Your task to perform on an android device: Google the capital of Venezuela Image 0: 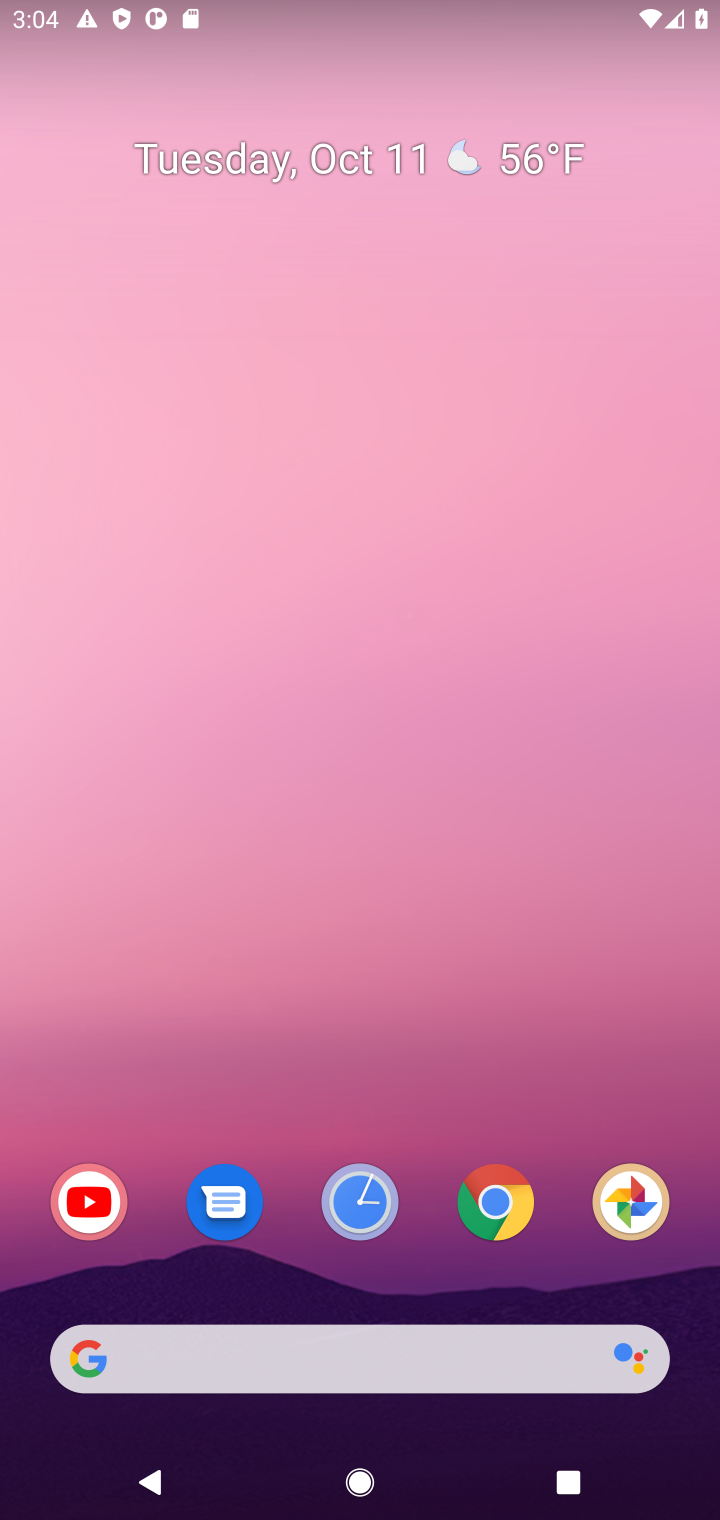
Step 0: drag from (429, 1243) to (449, 49)
Your task to perform on an android device: Google the capital of Venezuela Image 1: 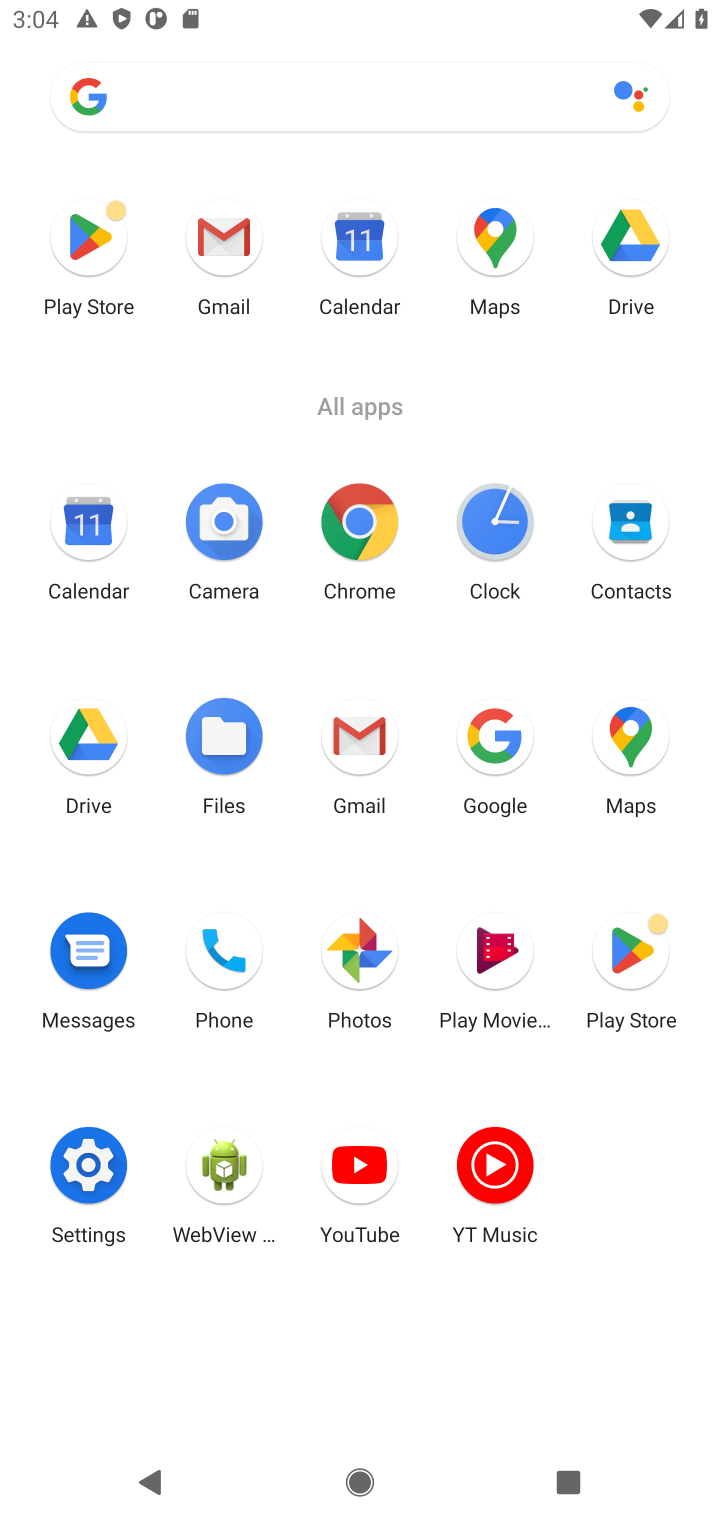
Step 1: click (359, 542)
Your task to perform on an android device: Google the capital of Venezuela Image 2: 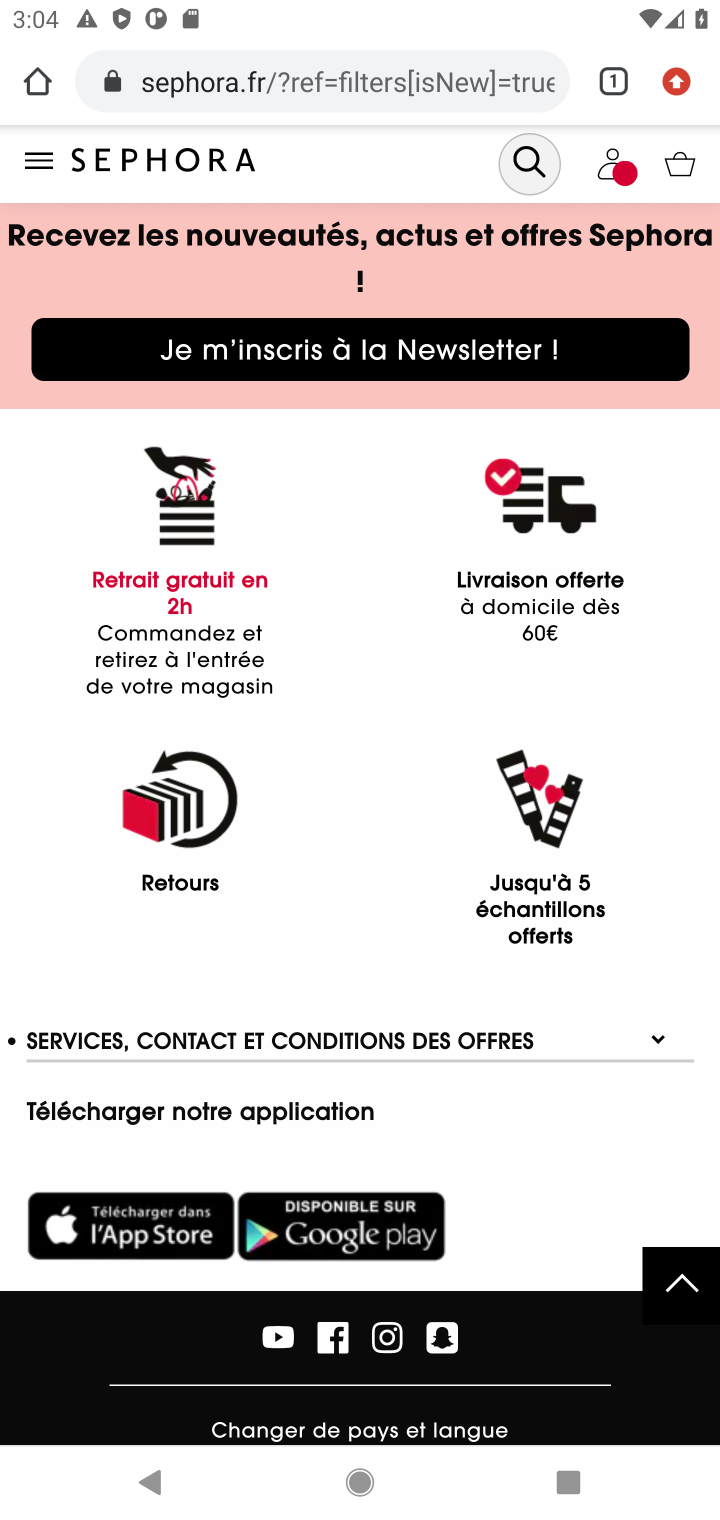
Step 2: click (276, 76)
Your task to perform on an android device: Google the capital of Venezuela Image 3: 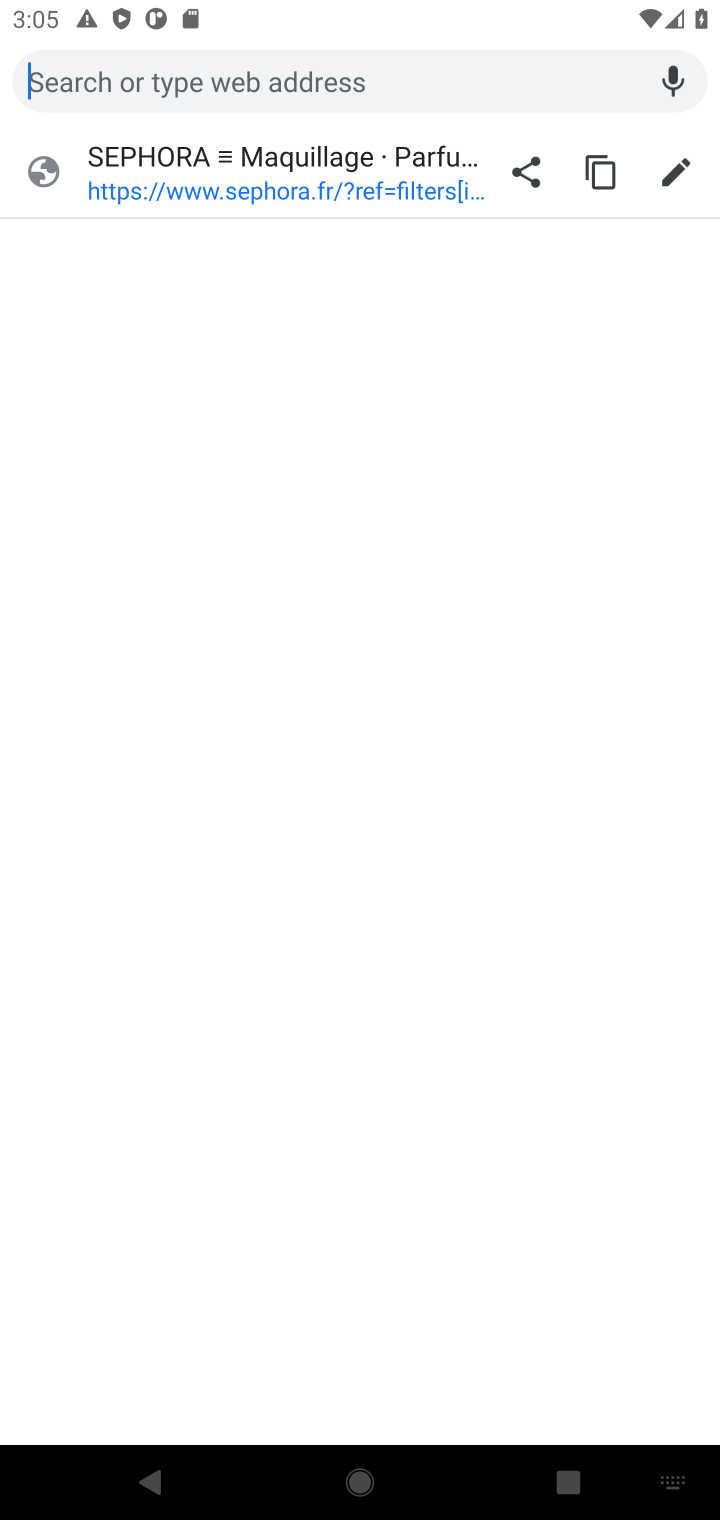
Step 3: type " capital of Venezuela"
Your task to perform on an android device: Google the capital of Venezuela Image 4: 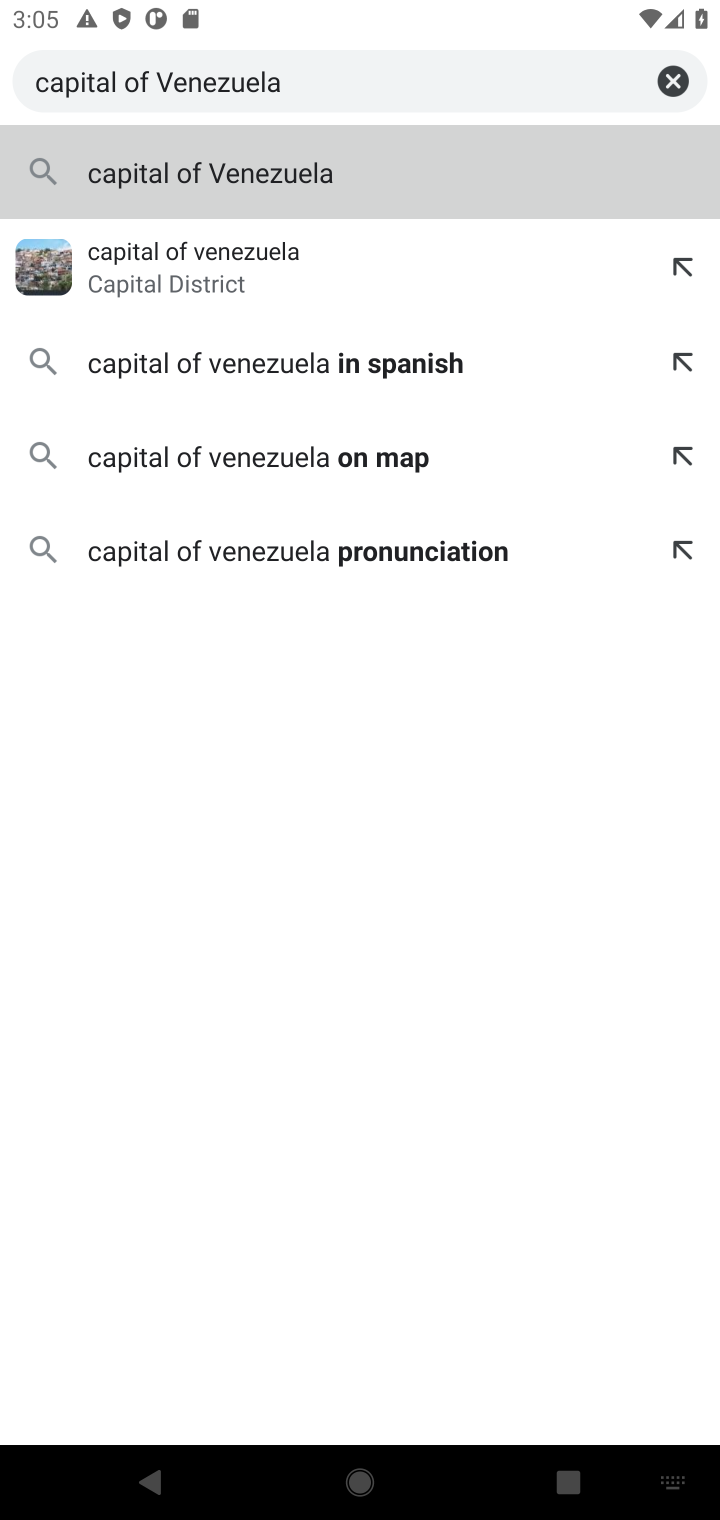
Step 4: type ""
Your task to perform on an android device: Google the capital of Venezuela Image 5: 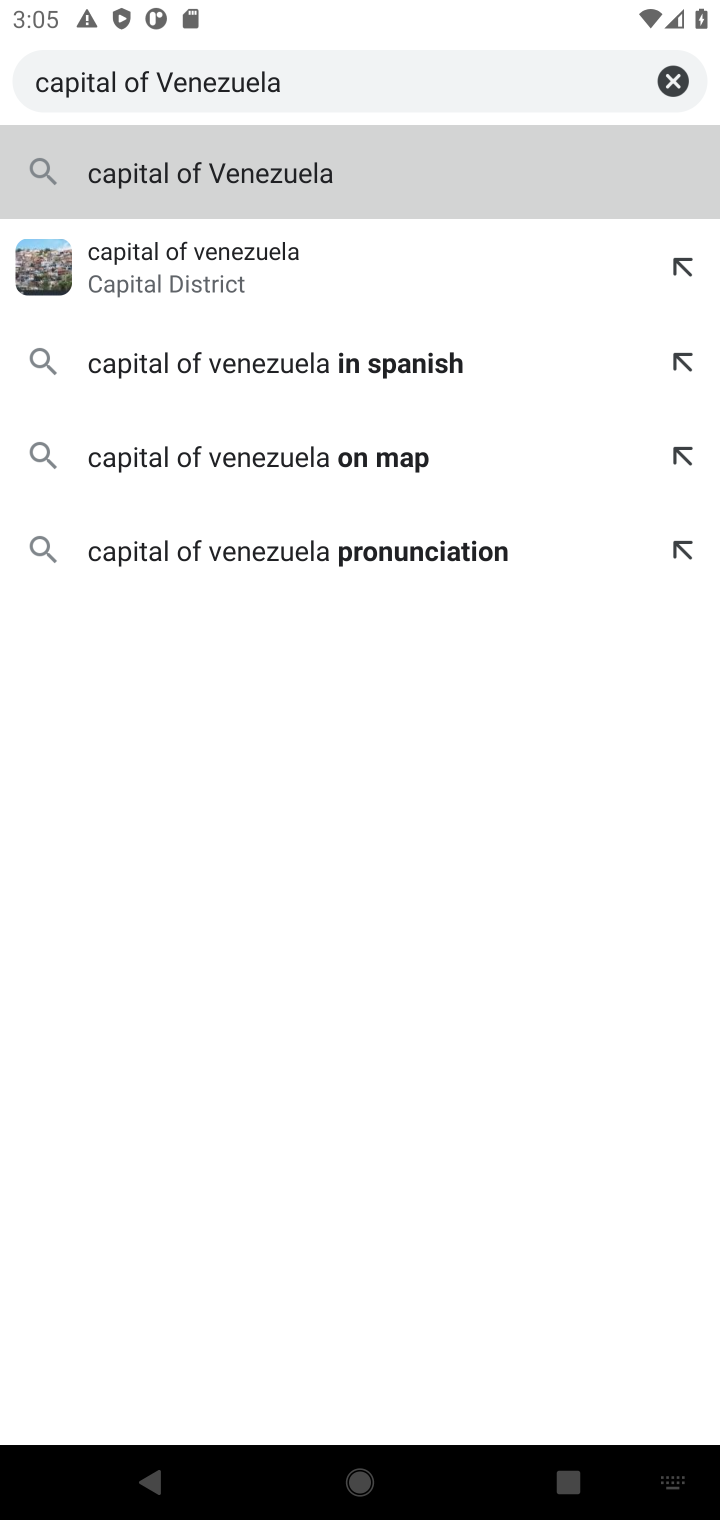
Step 5: click (384, 279)
Your task to perform on an android device: Google the capital of Venezuela Image 6: 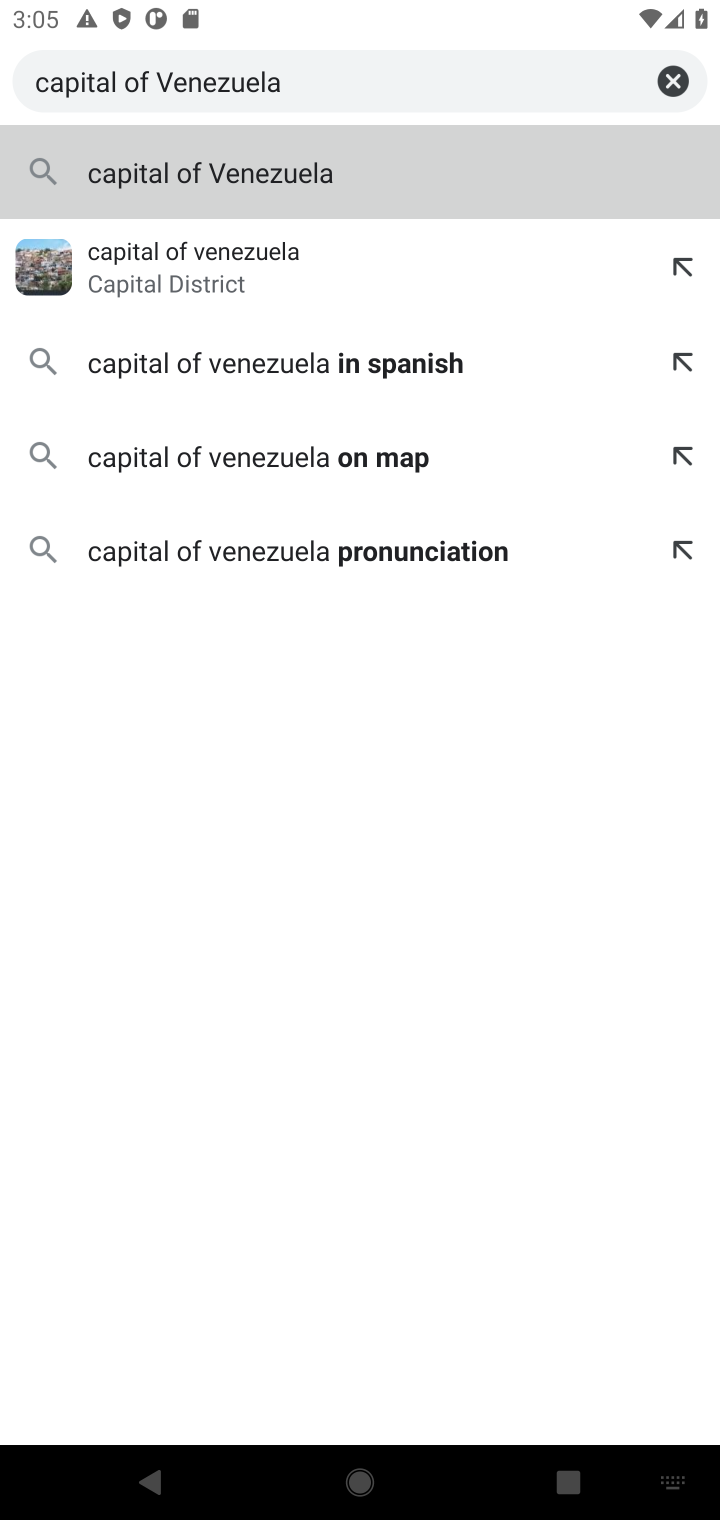
Step 6: click (124, 255)
Your task to perform on an android device: Google the capital of Venezuela Image 7: 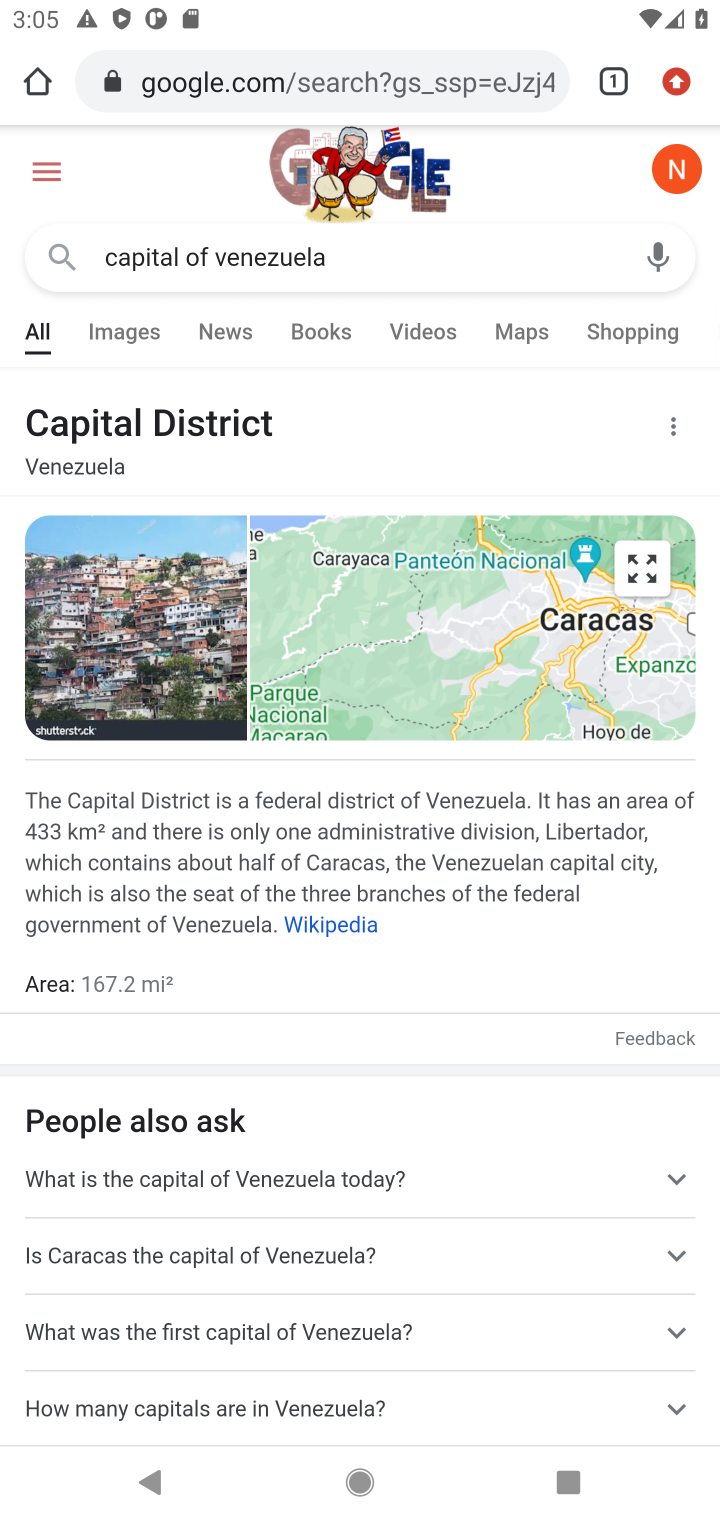
Step 7: drag from (152, 1120) to (407, 381)
Your task to perform on an android device: Google the capital of Venezuela Image 8: 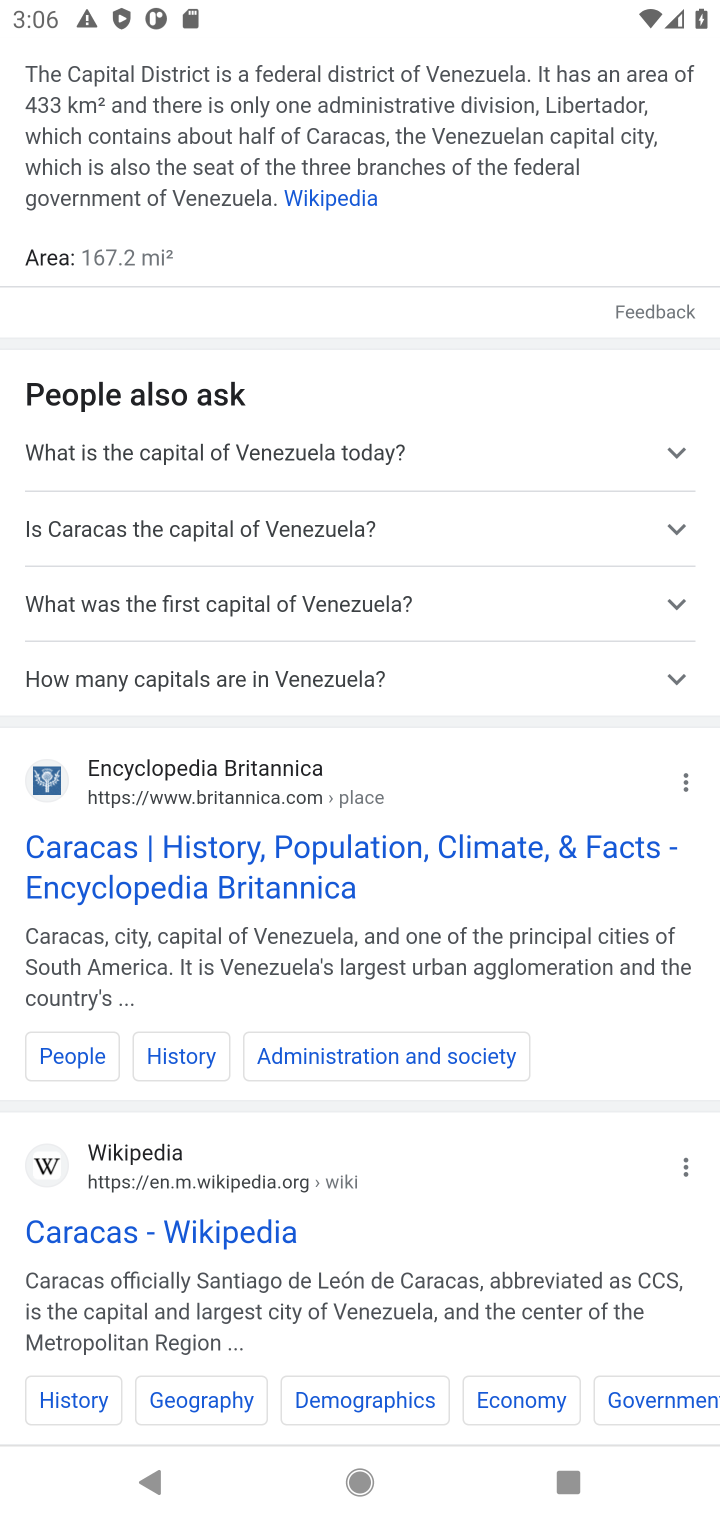
Step 8: drag from (391, 949) to (292, 428)
Your task to perform on an android device: Google the capital of Venezuela Image 9: 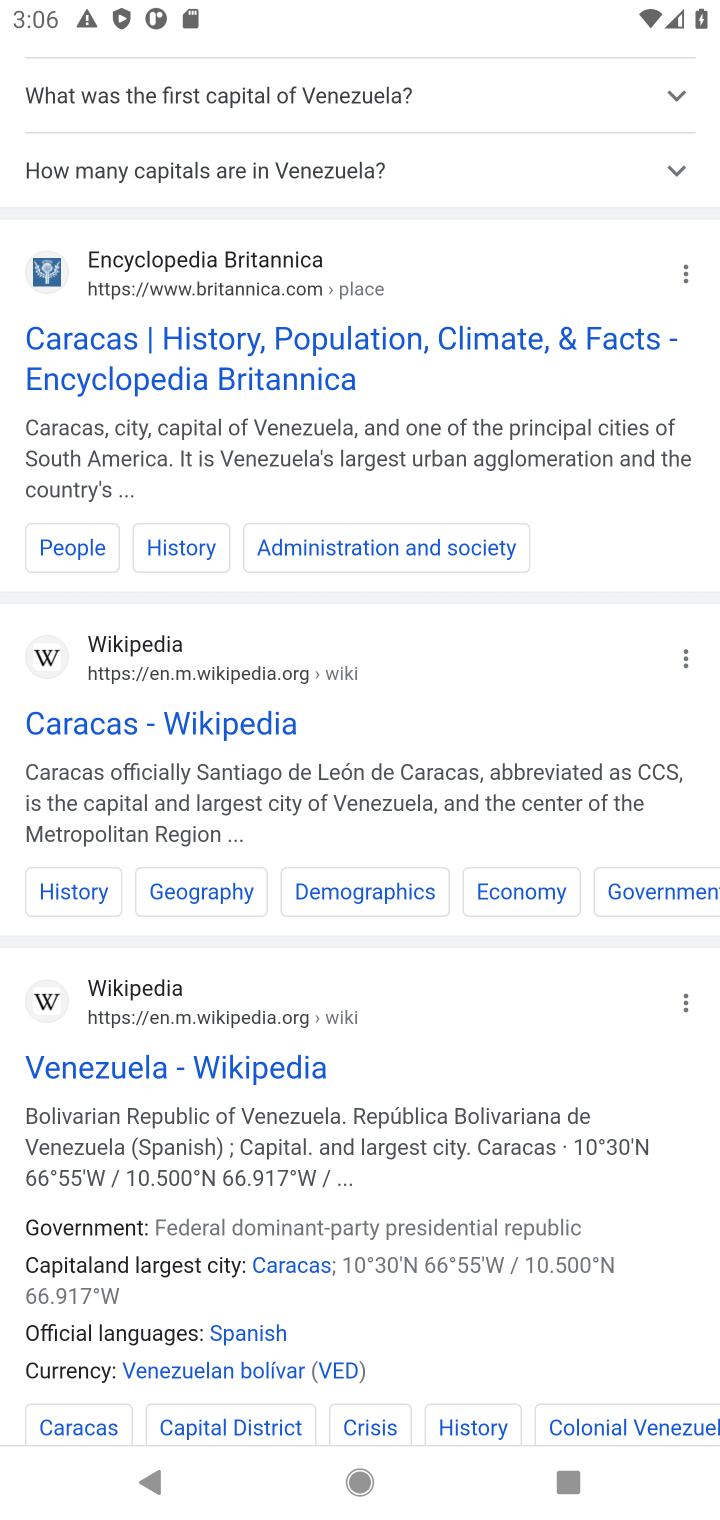
Step 9: drag from (181, 1054) to (258, 99)
Your task to perform on an android device: Google the capital of Venezuela Image 10: 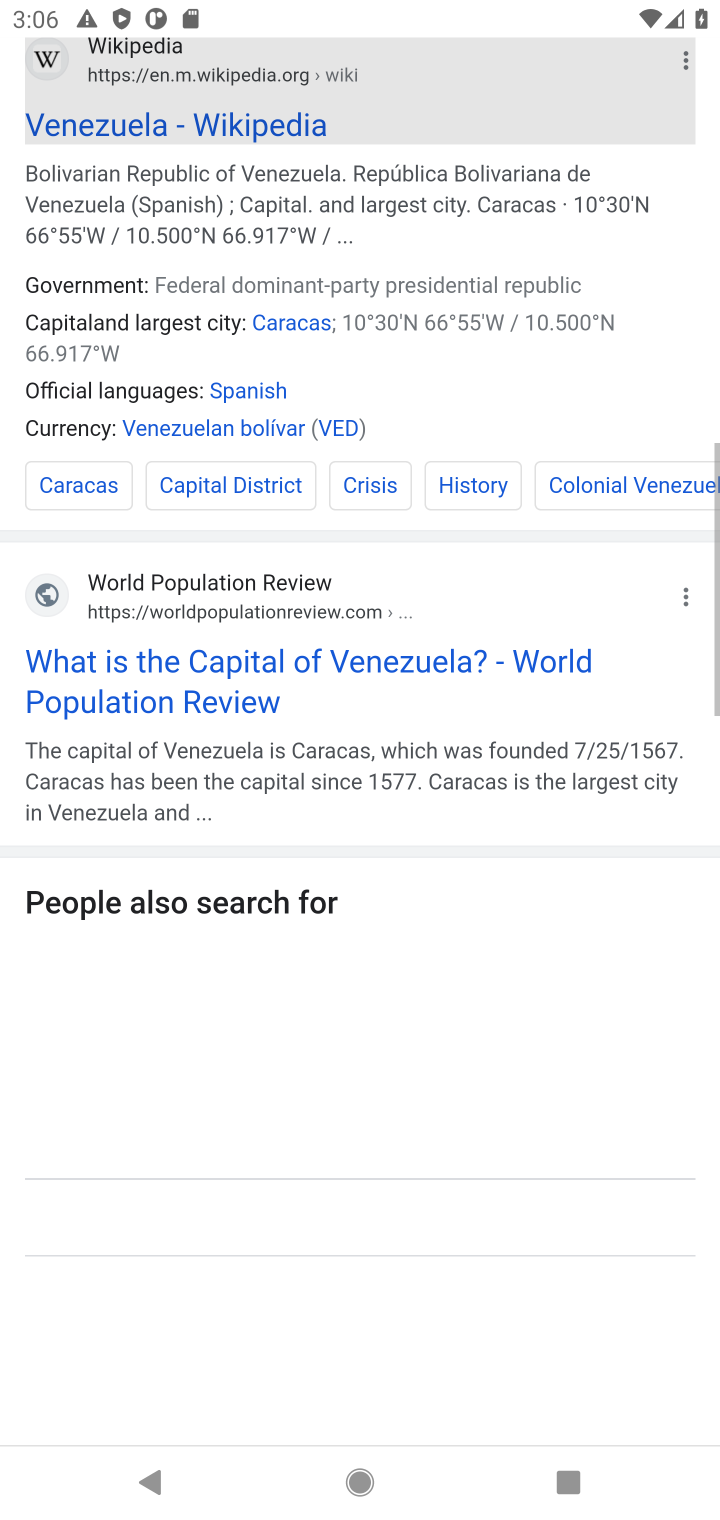
Step 10: drag from (411, 981) to (419, 192)
Your task to perform on an android device: Google the capital of Venezuela Image 11: 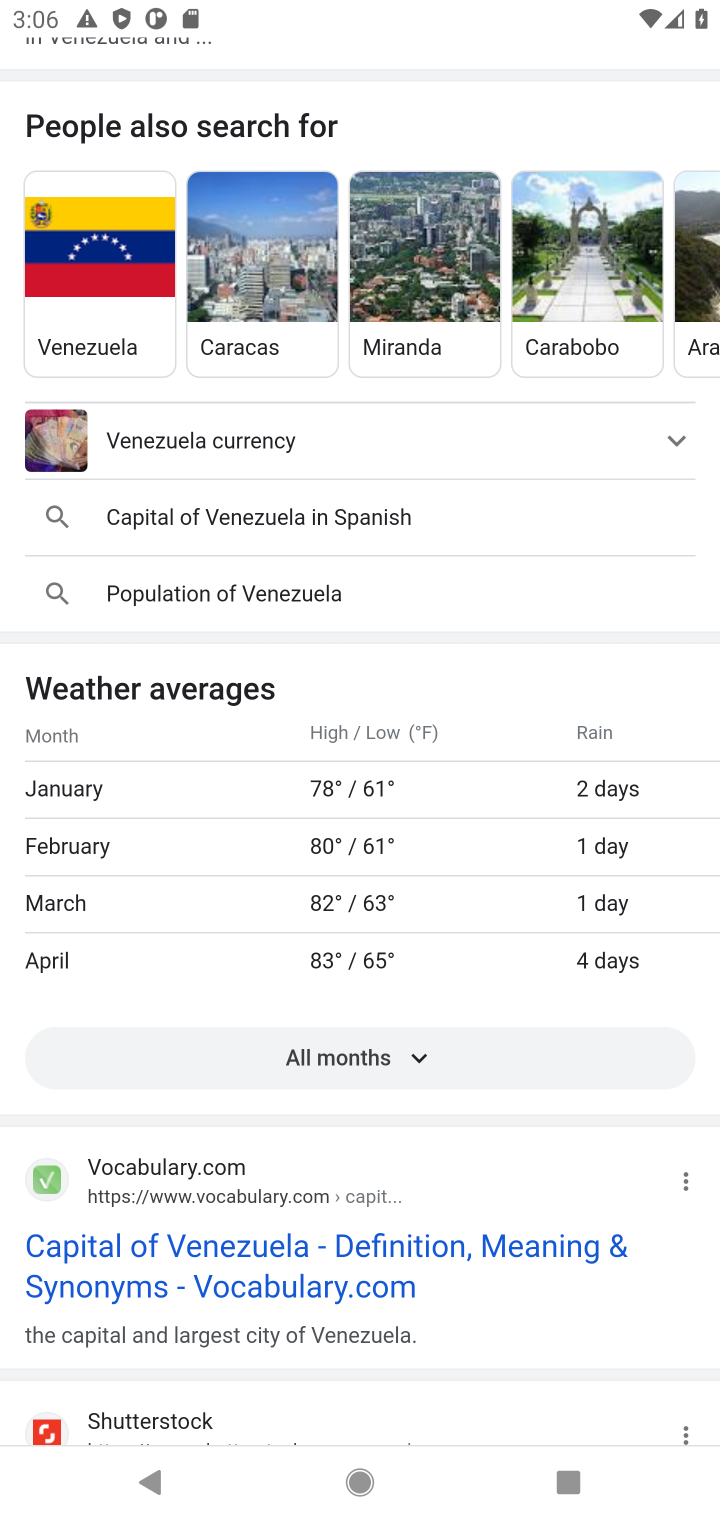
Step 11: drag from (515, 646) to (568, 184)
Your task to perform on an android device: Google the capital of Venezuela Image 12: 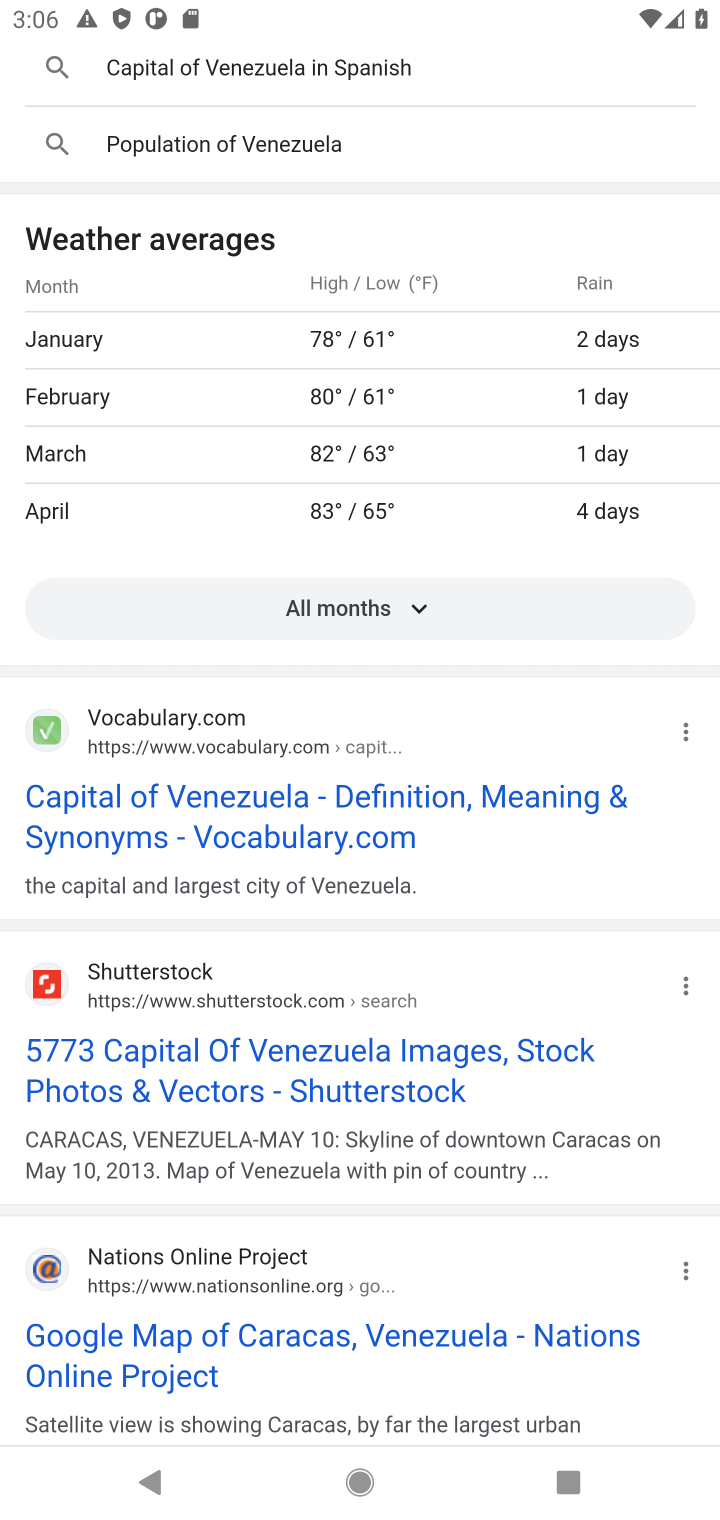
Step 12: click (248, 783)
Your task to perform on an android device: Google the capital of Venezuela Image 13: 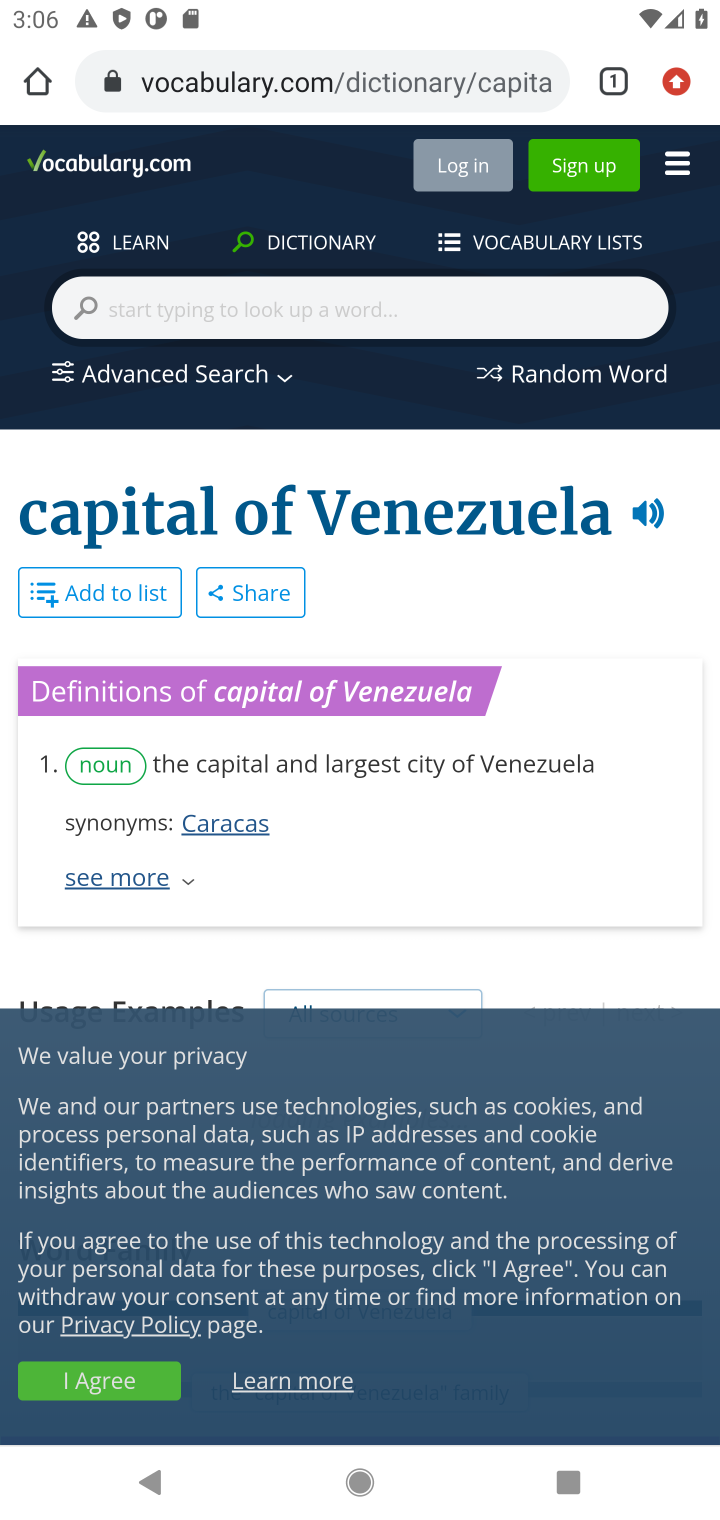
Step 13: drag from (216, 243) to (243, 12)
Your task to perform on an android device: Google the capital of Venezuela Image 14: 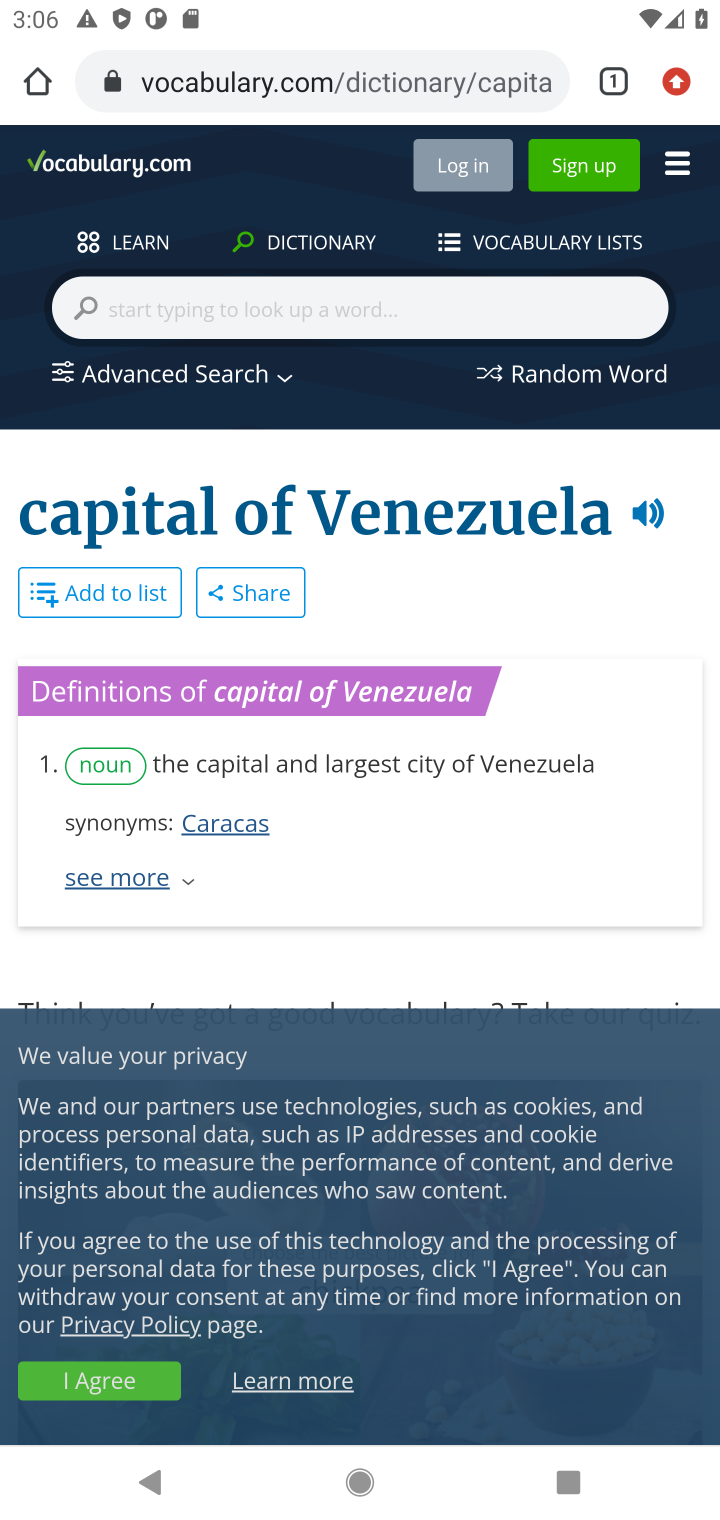
Step 14: drag from (409, 948) to (375, 230)
Your task to perform on an android device: Google the capital of Venezuela Image 15: 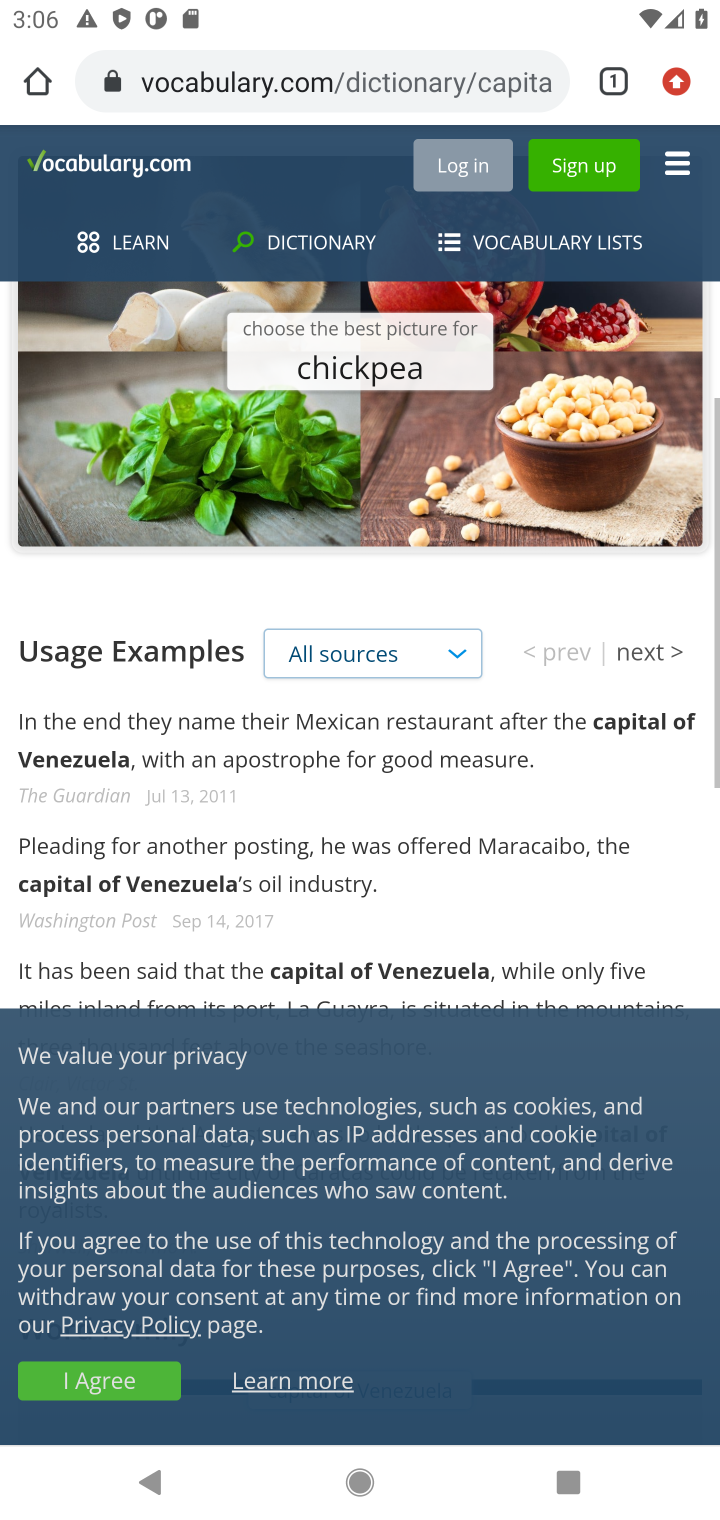
Step 15: click (453, 423)
Your task to perform on an android device: Google the capital of Venezuela Image 16: 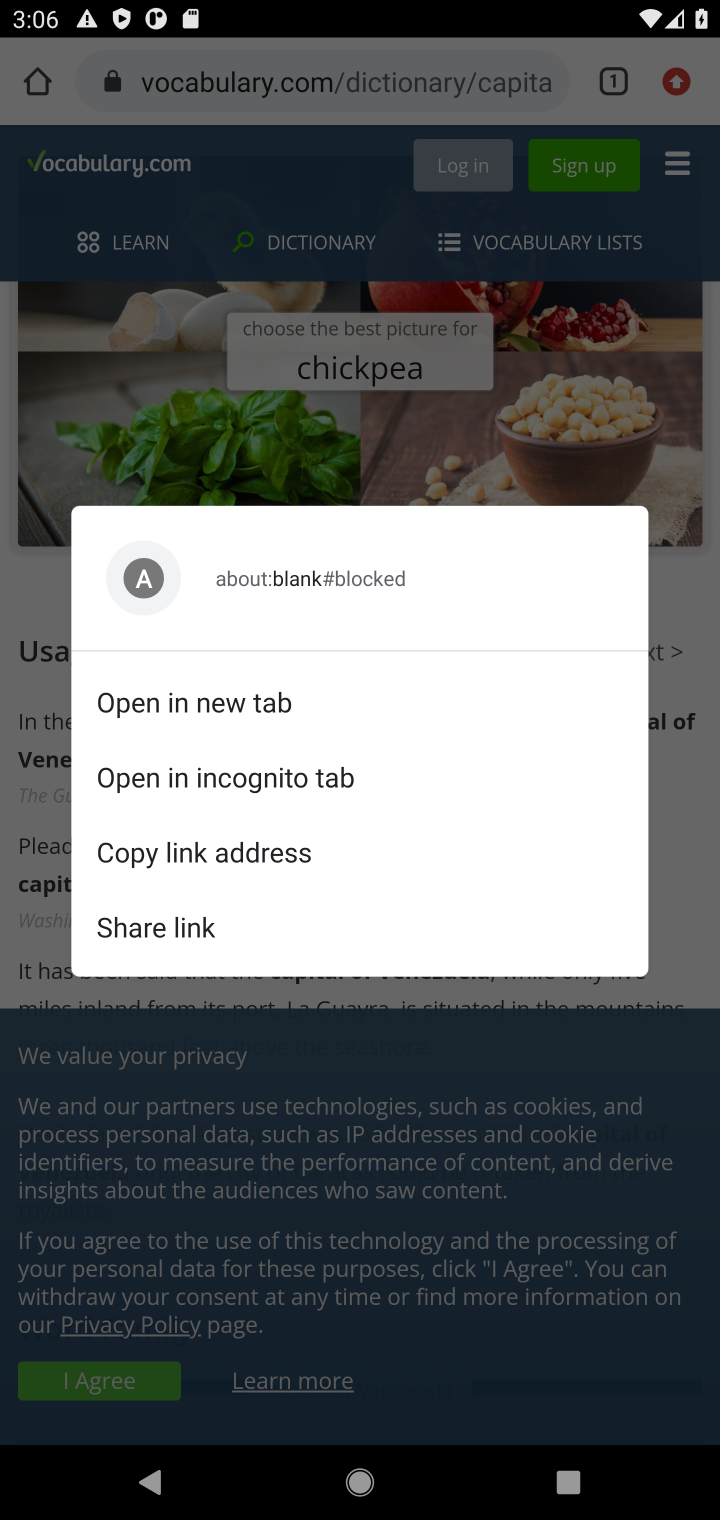
Step 16: press back button
Your task to perform on an android device: Google the capital of Venezuela Image 17: 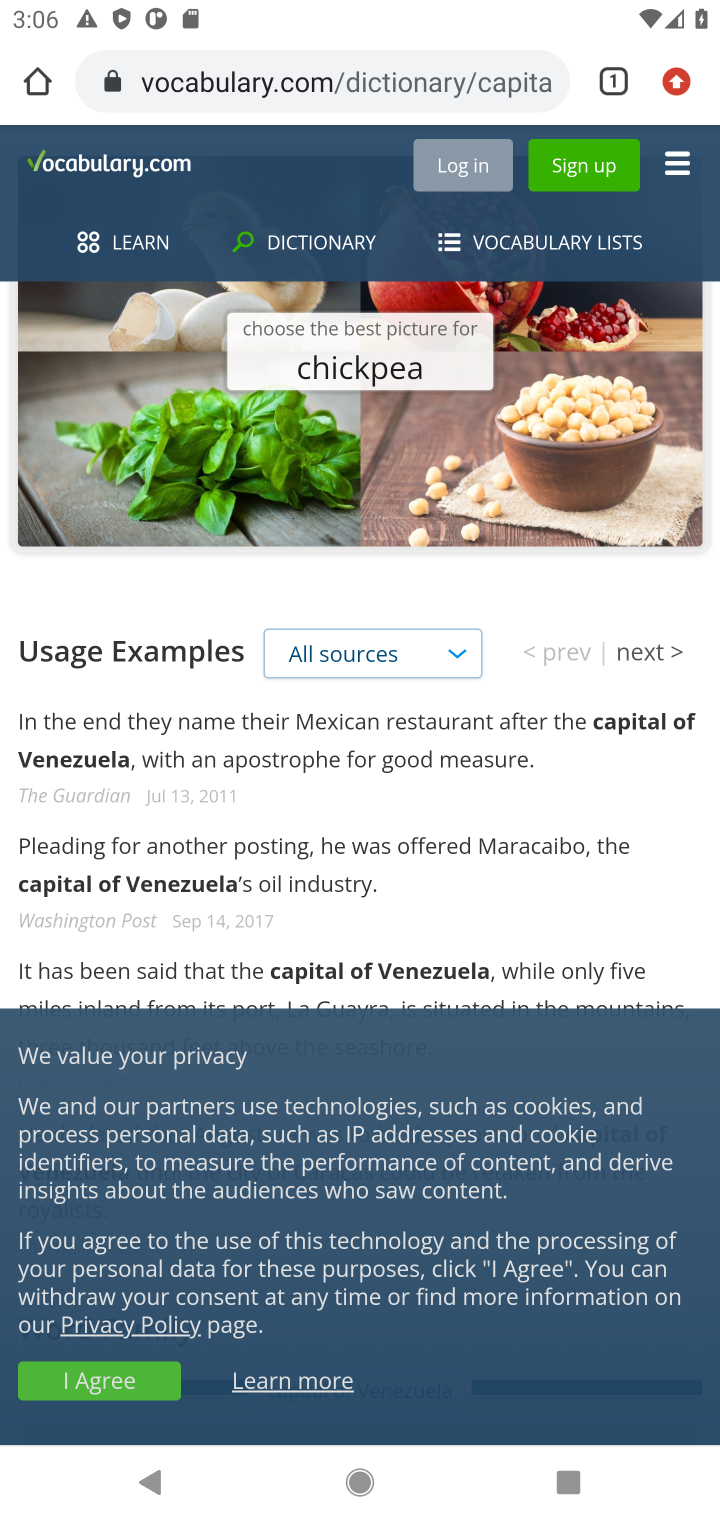
Step 17: click (579, 347)
Your task to perform on an android device: Google the capital of Venezuela Image 18: 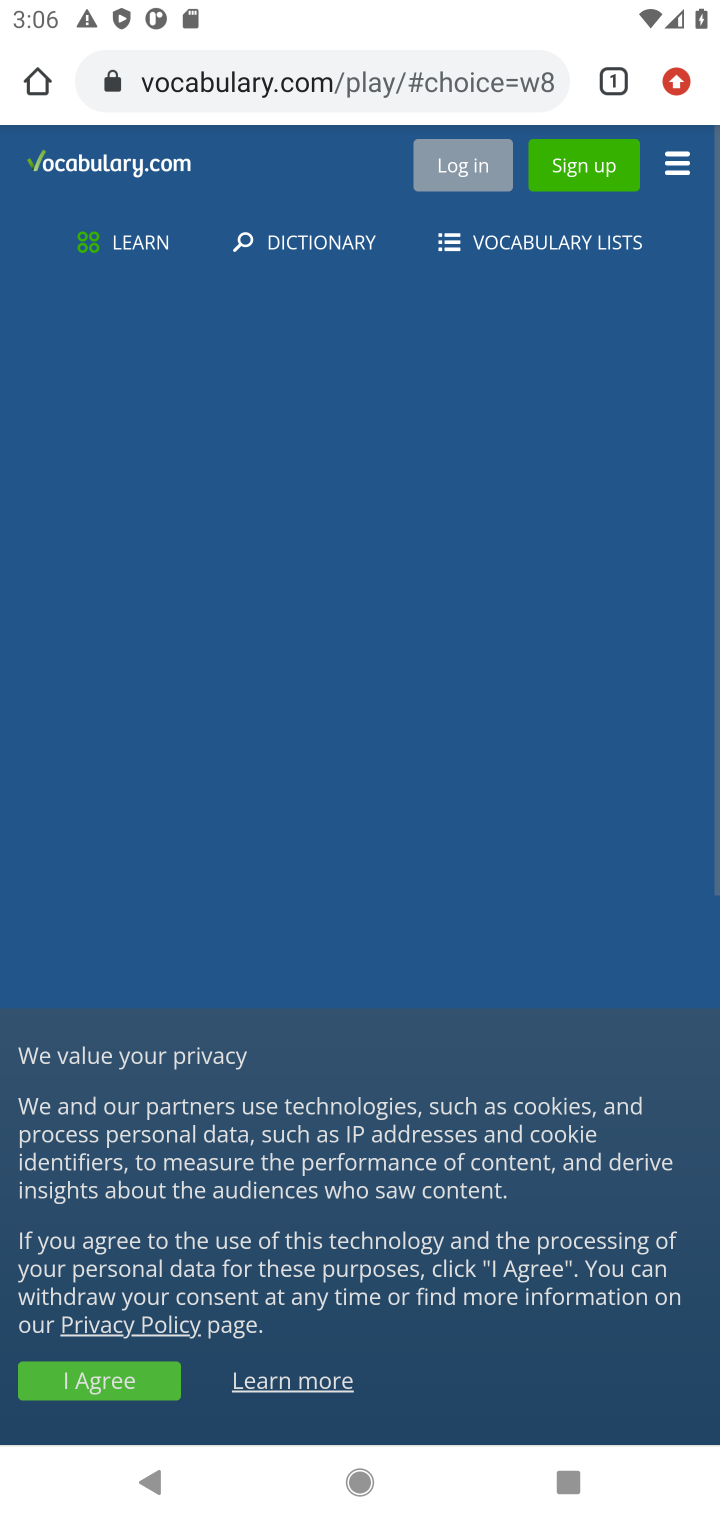
Step 18: press back button
Your task to perform on an android device: Google the capital of Venezuela Image 19: 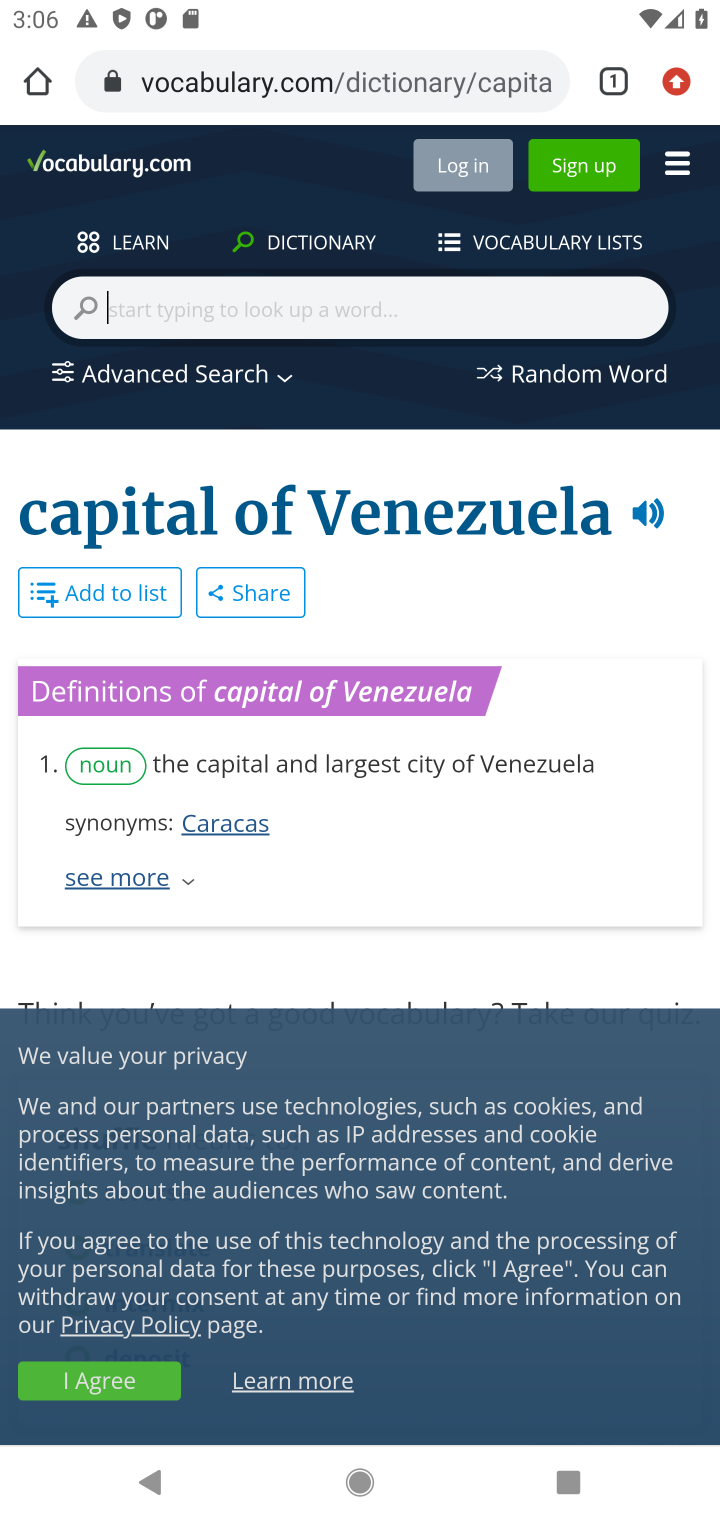
Step 19: press back button
Your task to perform on an android device: Google the capital of Venezuela Image 20: 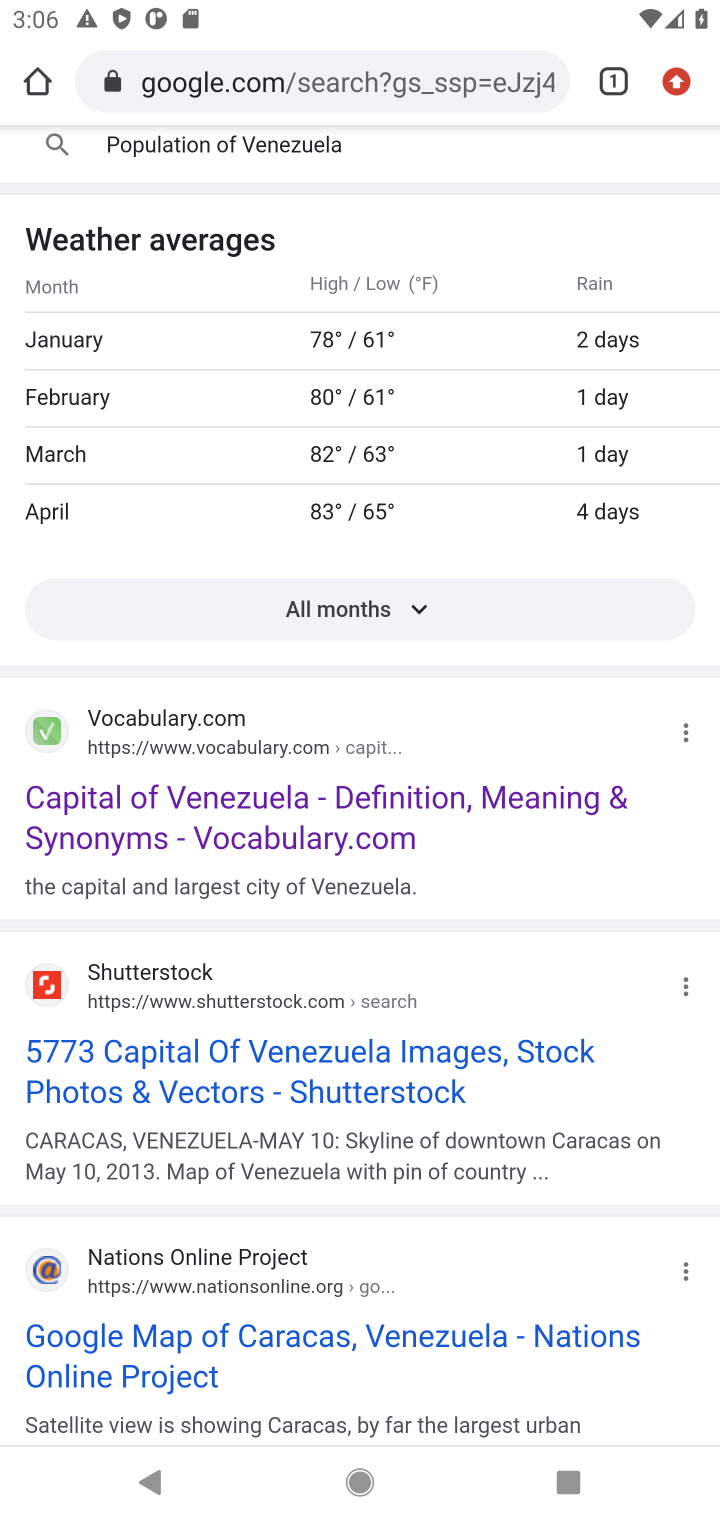
Step 20: drag from (334, 315) to (379, 1244)
Your task to perform on an android device: Google the capital of Venezuela Image 21: 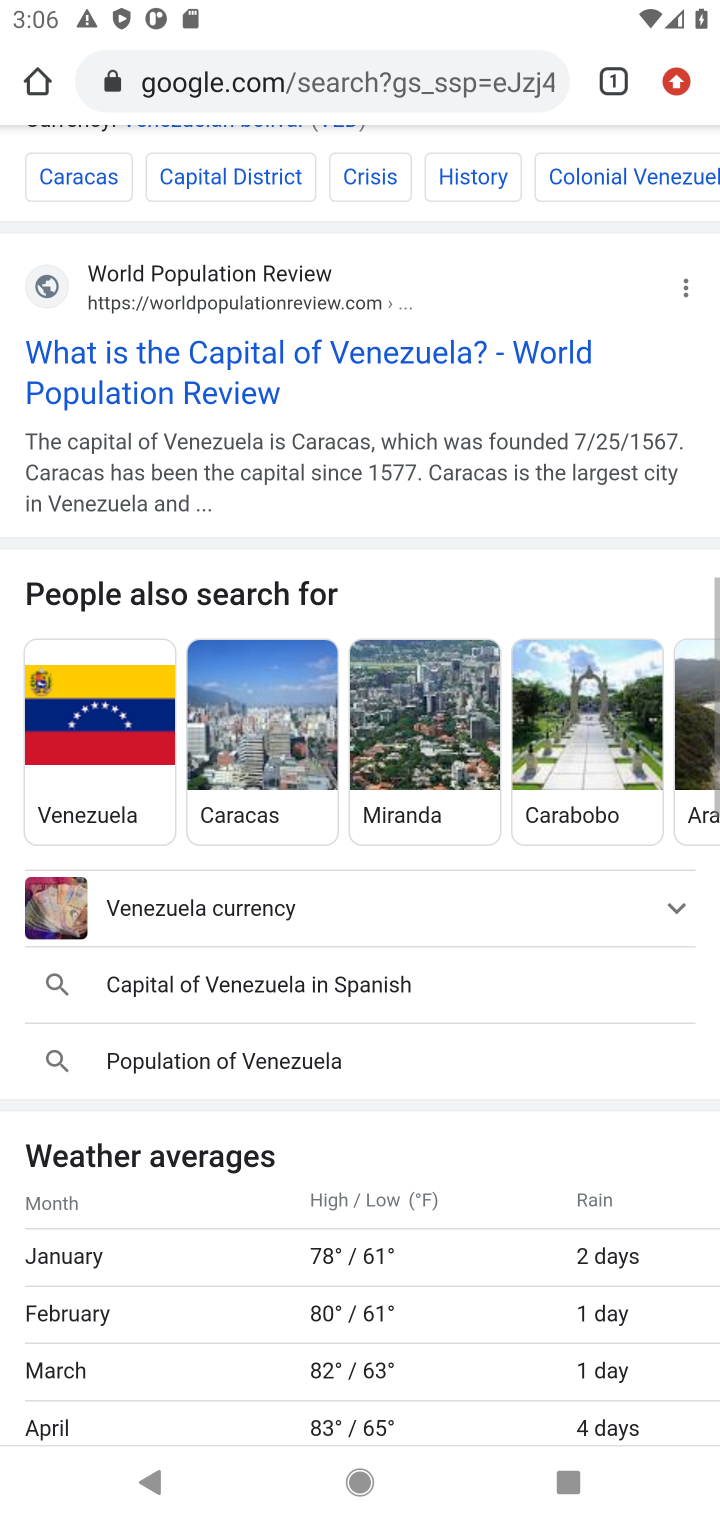
Step 21: drag from (380, 706) to (303, 1292)
Your task to perform on an android device: Google the capital of Venezuela Image 22: 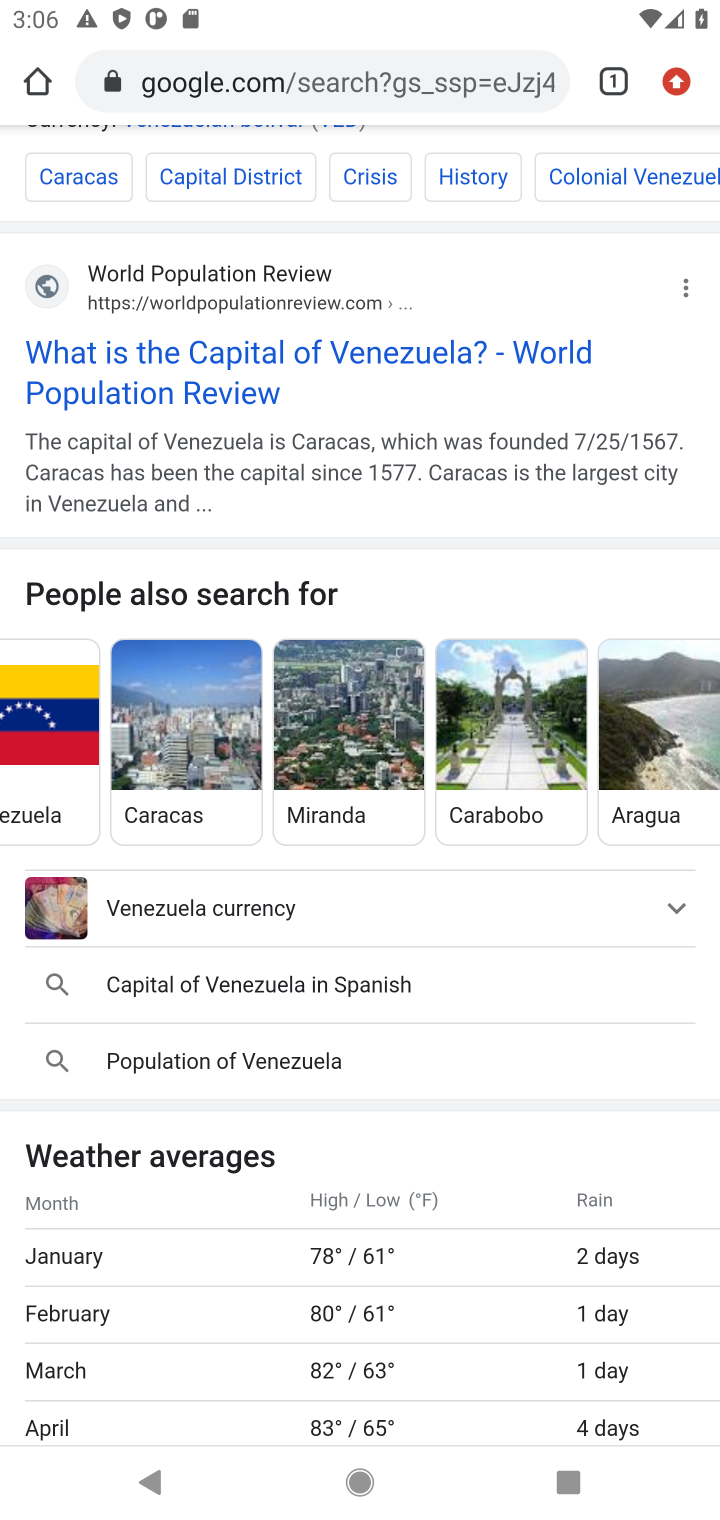
Step 22: drag from (190, 522) to (206, 1312)
Your task to perform on an android device: Google the capital of Venezuela Image 23: 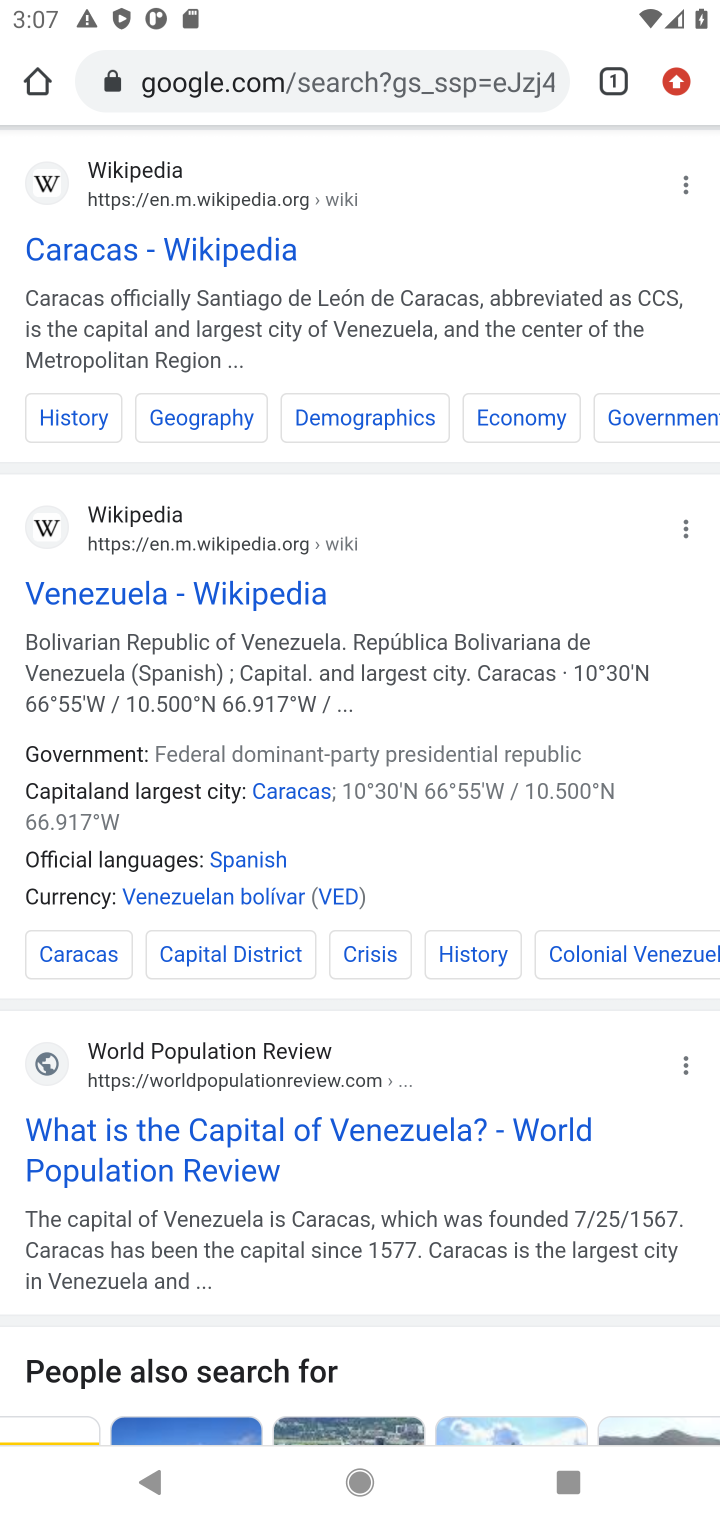
Step 23: click (167, 269)
Your task to perform on an android device: Google the capital of Venezuela Image 24: 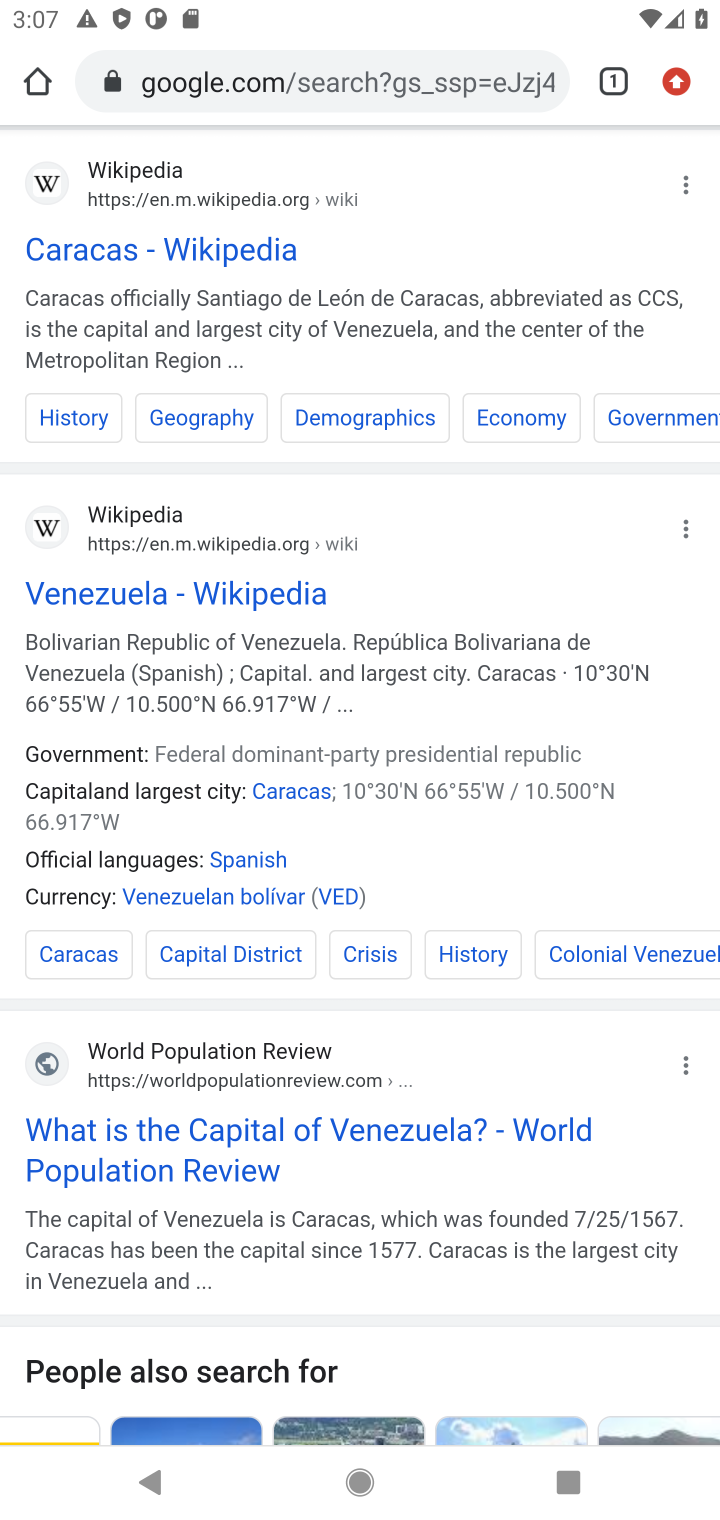
Step 24: click (167, 252)
Your task to perform on an android device: Google the capital of Venezuela Image 25: 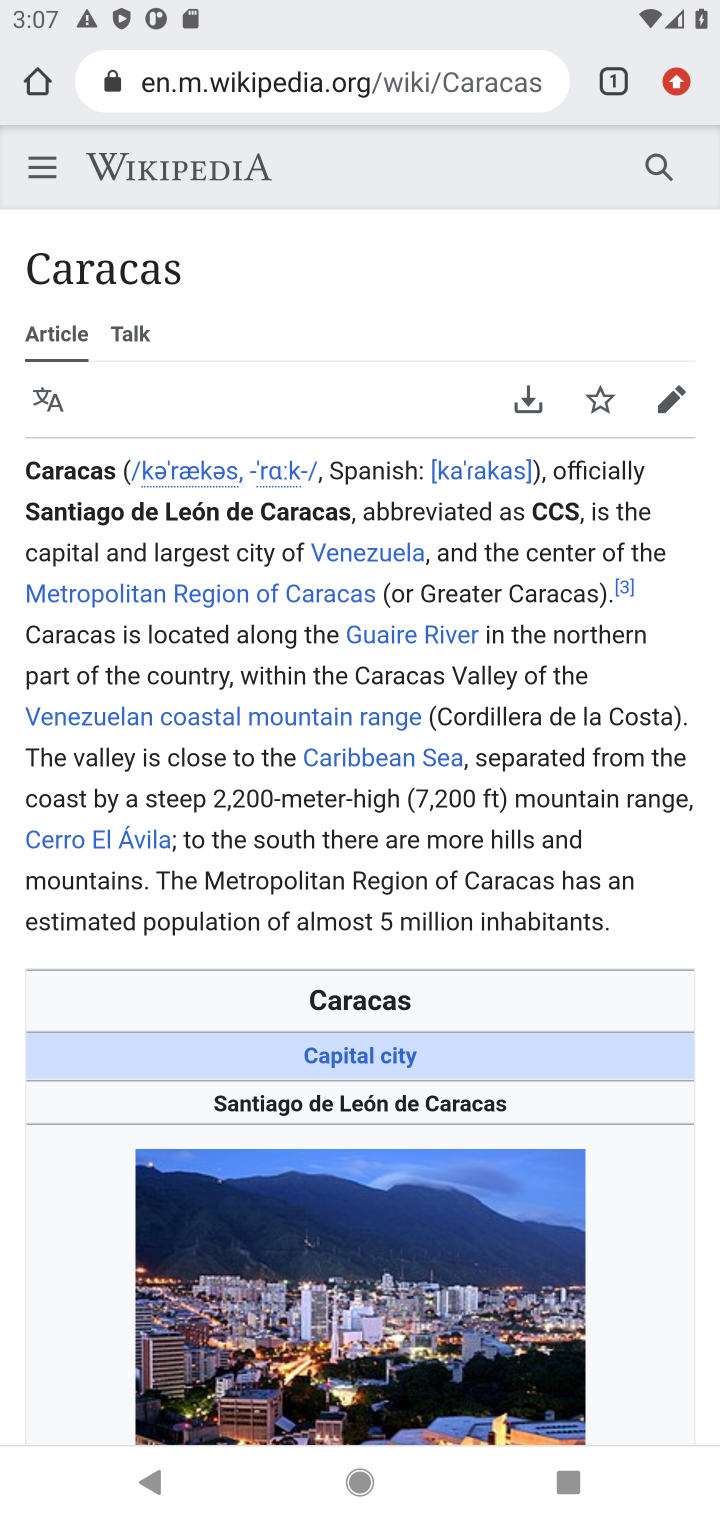
Step 25: task complete